Your task to perform on an android device: turn off data saver in the chrome app Image 0: 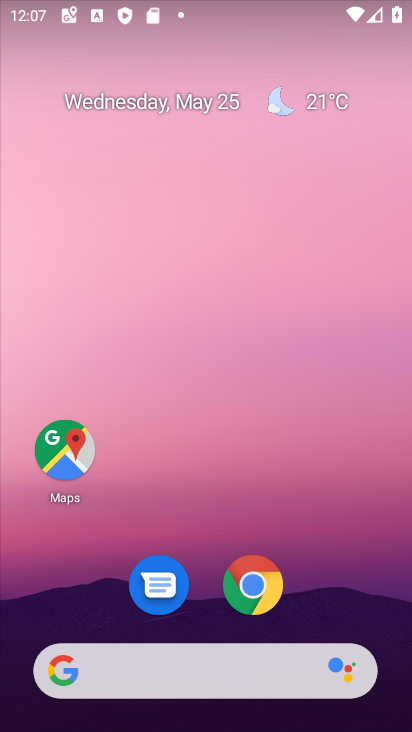
Step 0: click (253, 590)
Your task to perform on an android device: turn off data saver in the chrome app Image 1: 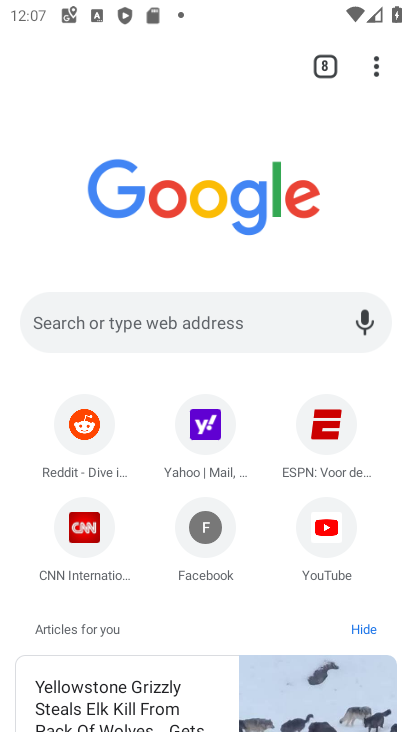
Step 1: click (372, 73)
Your task to perform on an android device: turn off data saver in the chrome app Image 2: 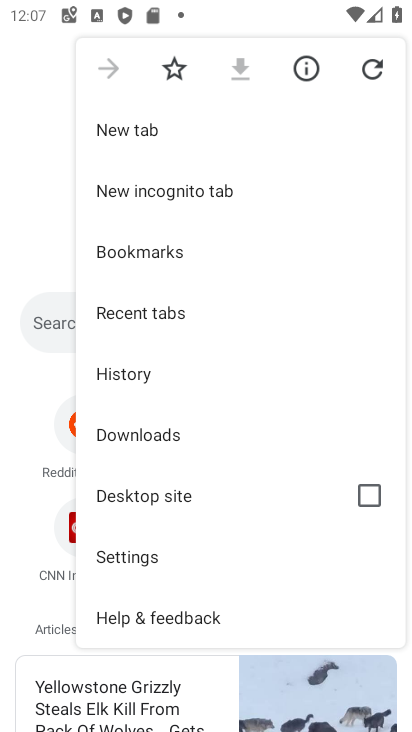
Step 2: click (150, 547)
Your task to perform on an android device: turn off data saver in the chrome app Image 3: 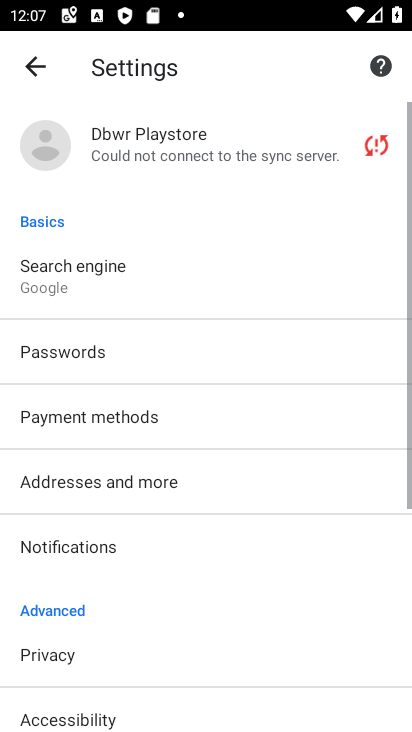
Step 3: drag from (225, 500) to (263, 53)
Your task to perform on an android device: turn off data saver in the chrome app Image 4: 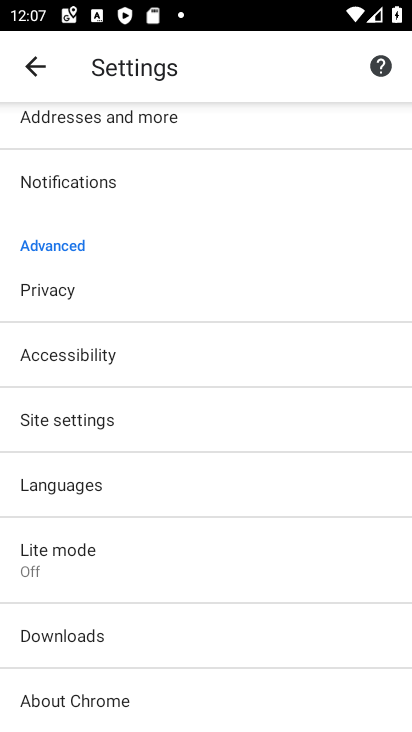
Step 4: click (147, 567)
Your task to perform on an android device: turn off data saver in the chrome app Image 5: 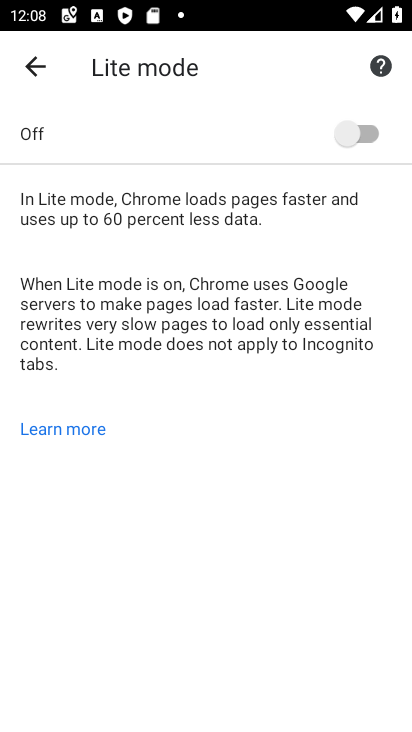
Step 5: task complete